Your task to perform on an android device: Search for pizza restaurants on Maps Image 0: 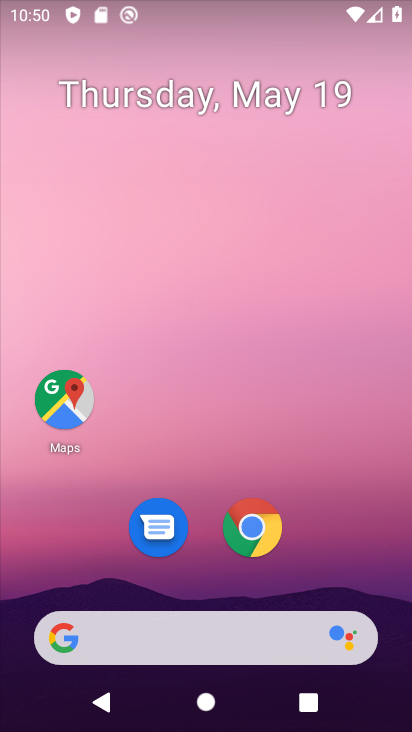
Step 0: click (77, 413)
Your task to perform on an android device: Search for pizza restaurants on Maps Image 1: 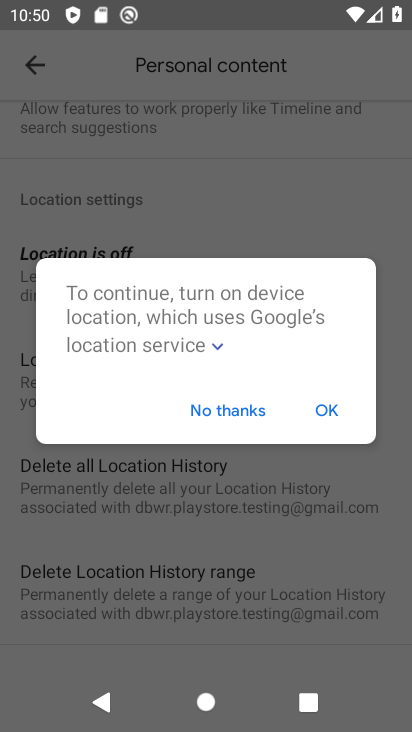
Step 1: click (45, 71)
Your task to perform on an android device: Search for pizza restaurants on Maps Image 2: 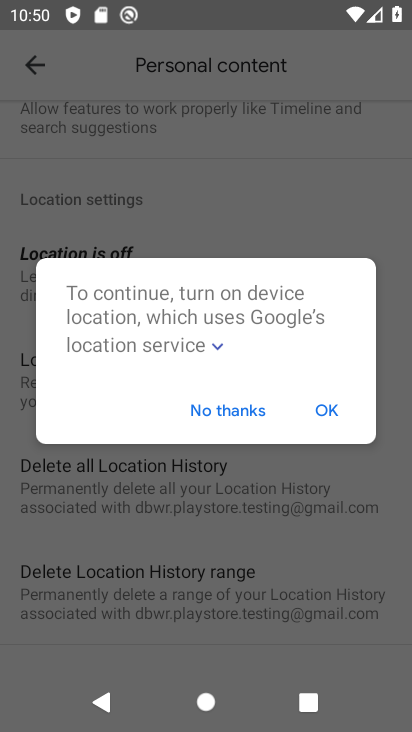
Step 2: click (328, 401)
Your task to perform on an android device: Search for pizza restaurants on Maps Image 3: 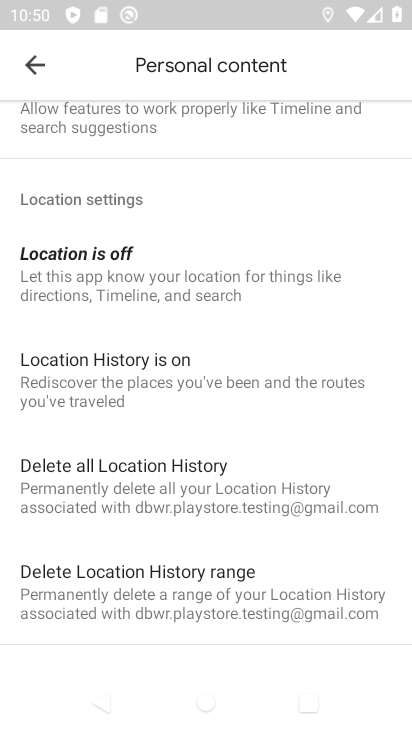
Step 3: click (36, 73)
Your task to perform on an android device: Search for pizza restaurants on Maps Image 4: 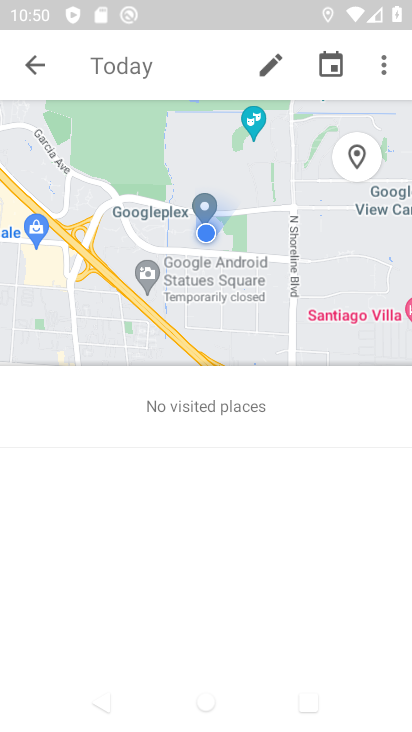
Step 4: click (45, 70)
Your task to perform on an android device: Search for pizza restaurants on Maps Image 5: 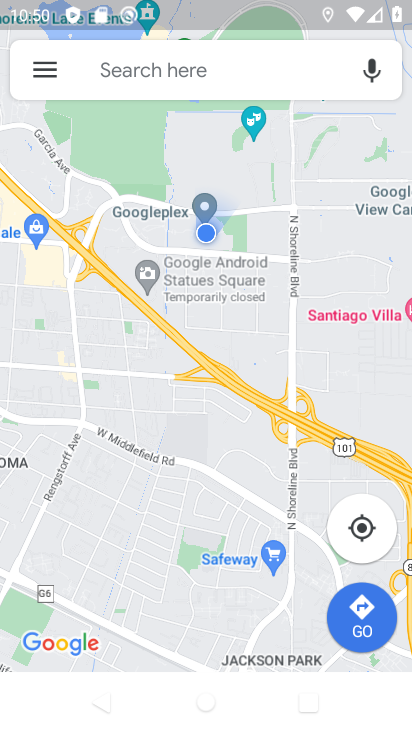
Step 5: click (153, 77)
Your task to perform on an android device: Search for pizza restaurants on Maps Image 6: 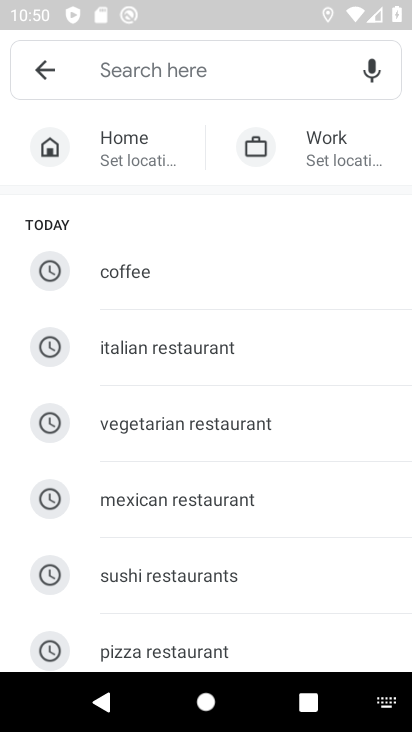
Step 6: type "pizza restaurants"
Your task to perform on an android device: Search for pizza restaurants on Maps Image 7: 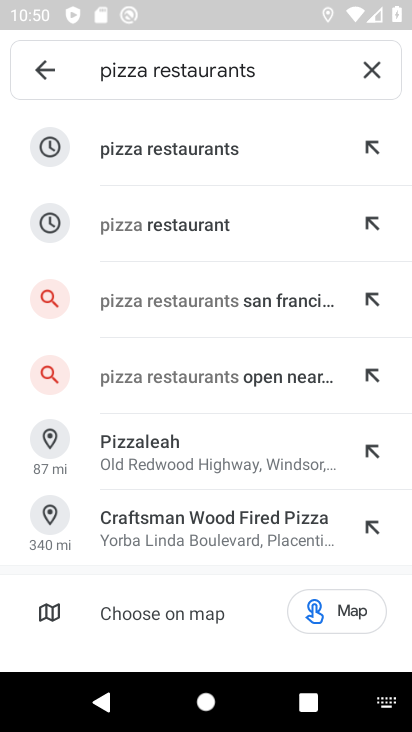
Step 7: click (208, 160)
Your task to perform on an android device: Search for pizza restaurants on Maps Image 8: 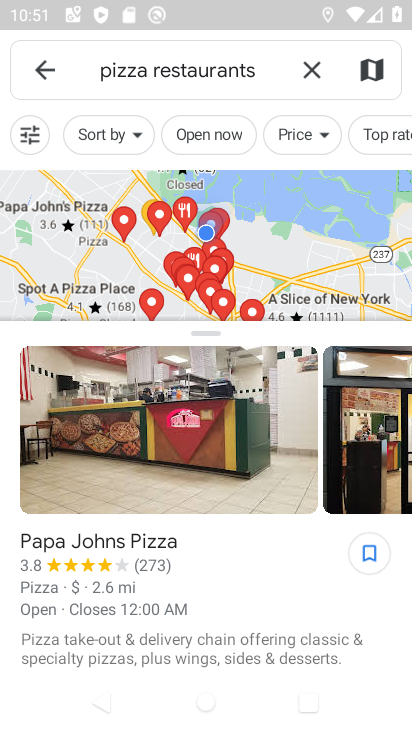
Step 8: task complete